Your task to perform on an android device: Open location settings Image 0: 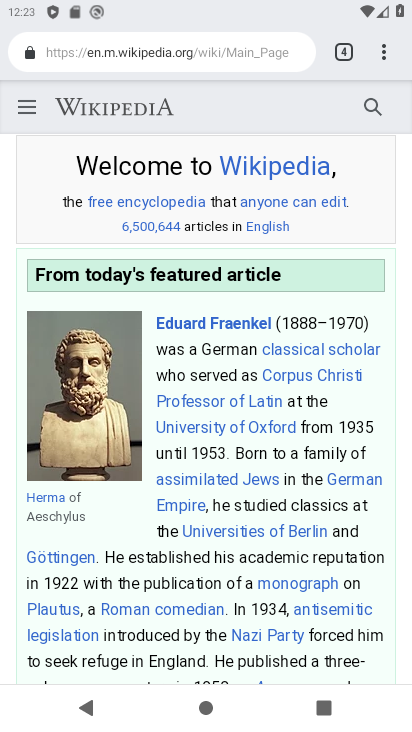
Step 0: press home button
Your task to perform on an android device: Open location settings Image 1: 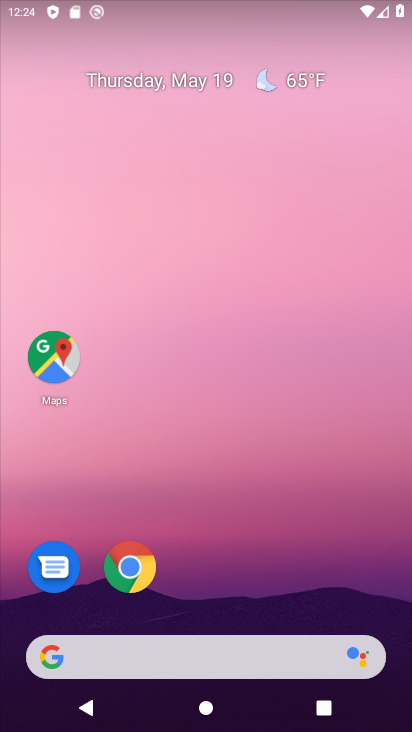
Step 1: drag from (267, 590) to (244, 155)
Your task to perform on an android device: Open location settings Image 2: 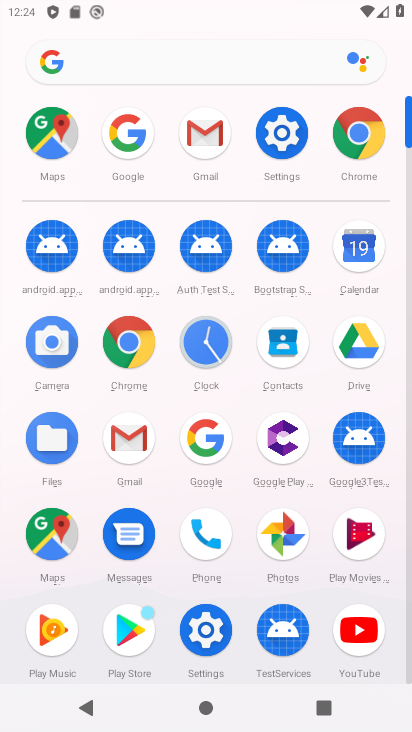
Step 2: click (283, 134)
Your task to perform on an android device: Open location settings Image 3: 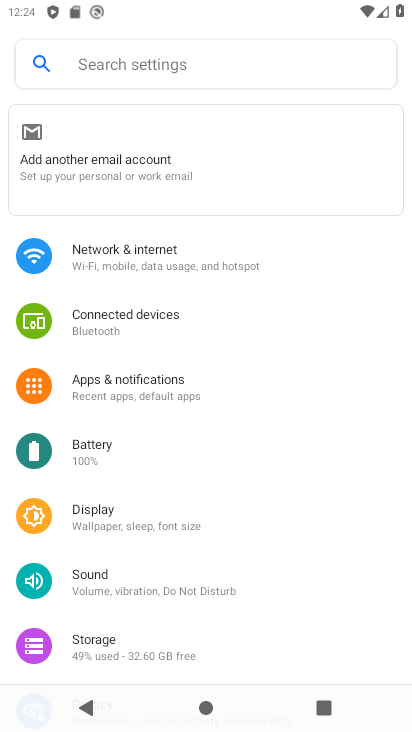
Step 3: drag from (261, 546) to (250, 411)
Your task to perform on an android device: Open location settings Image 4: 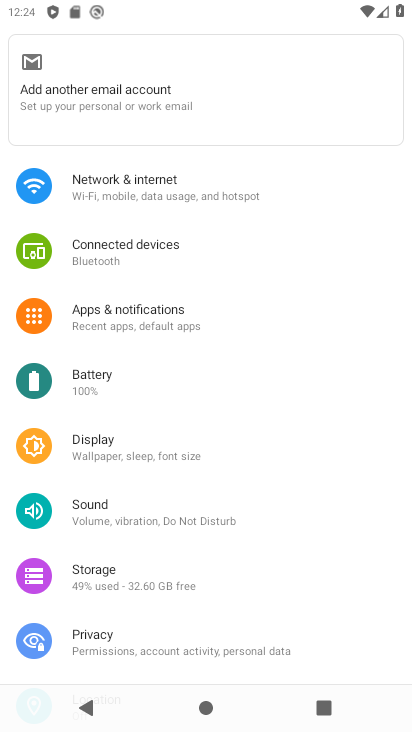
Step 4: drag from (215, 597) to (223, 323)
Your task to perform on an android device: Open location settings Image 5: 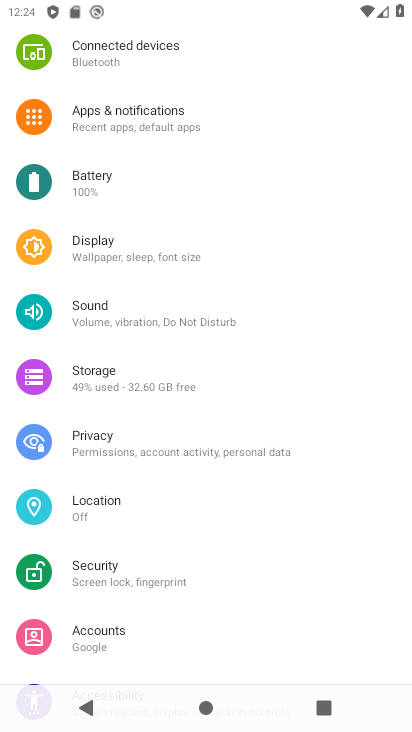
Step 5: click (155, 506)
Your task to perform on an android device: Open location settings Image 6: 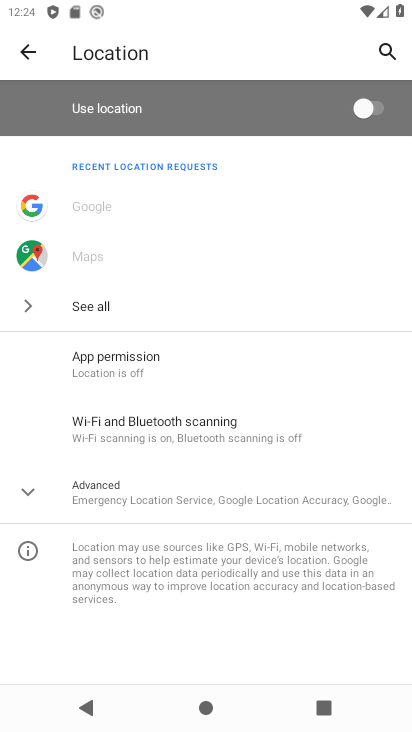
Step 6: task complete